Your task to perform on an android device: set an alarm Image 0: 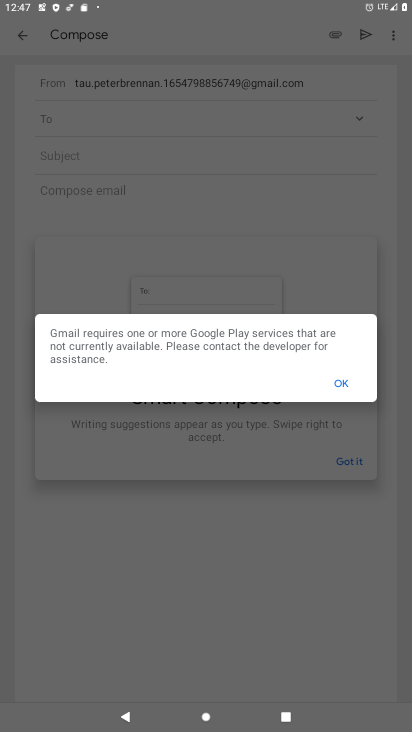
Step 0: press home button
Your task to perform on an android device: set an alarm Image 1: 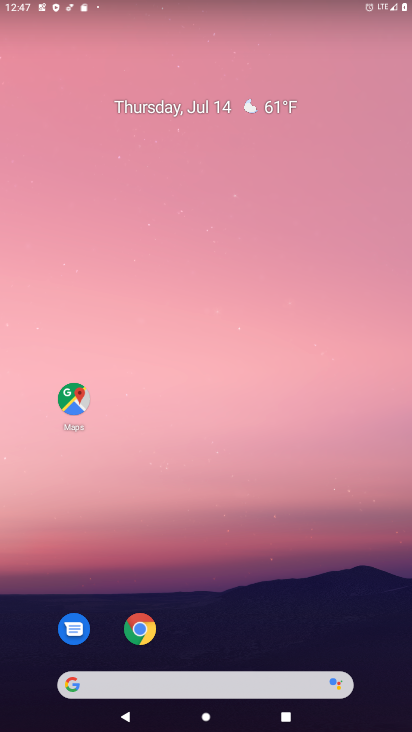
Step 1: drag from (213, 547) to (179, 110)
Your task to perform on an android device: set an alarm Image 2: 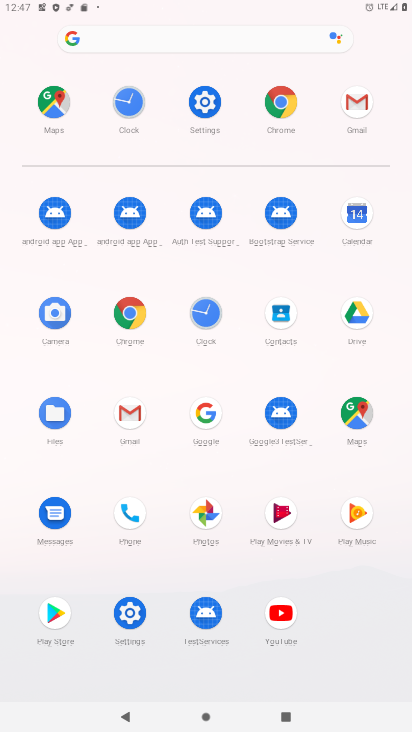
Step 2: click (205, 312)
Your task to perform on an android device: set an alarm Image 3: 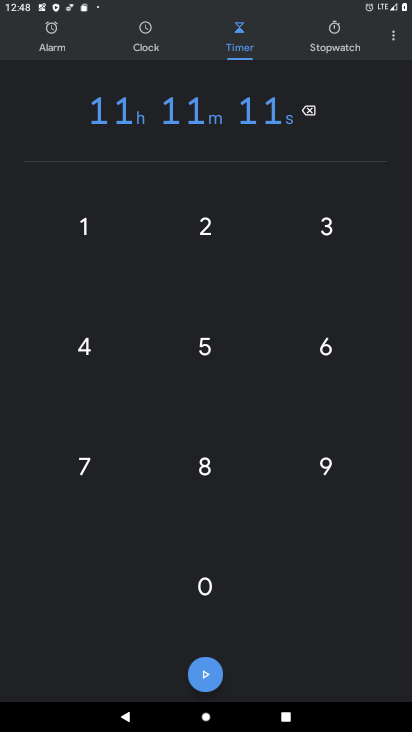
Step 3: click (51, 47)
Your task to perform on an android device: set an alarm Image 4: 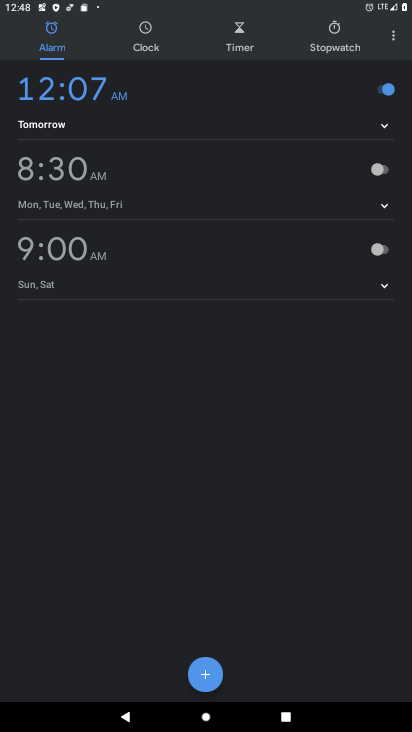
Step 4: click (204, 675)
Your task to perform on an android device: set an alarm Image 5: 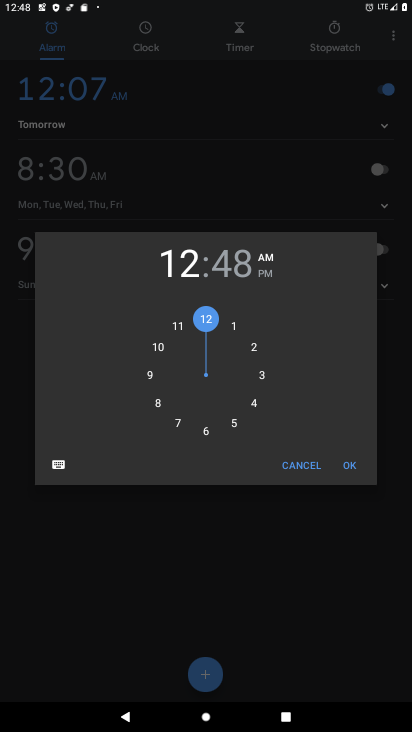
Step 5: click (347, 467)
Your task to perform on an android device: set an alarm Image 6: 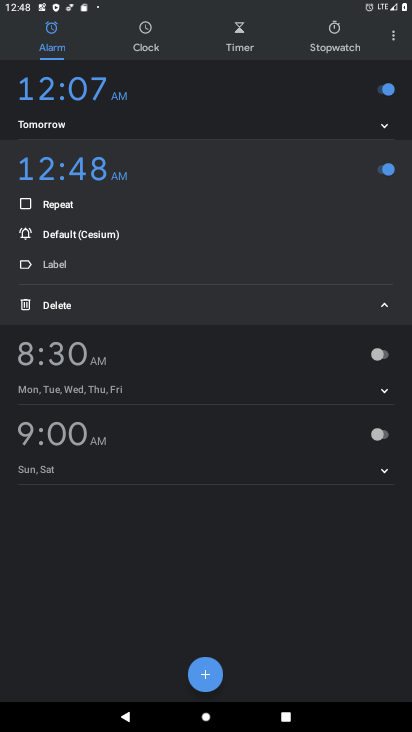
Step 6: task complete